Your task to perform on an android device: Open calendar and show me the first week of next month Image 0: 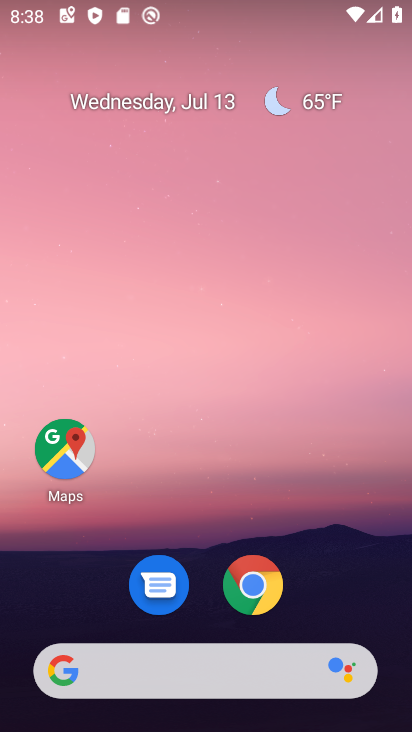
Step 0: drag from (325, 546) to (312, 10)
Your task to perform on an android device: Open calendar and show me the first week of next month Image 1: 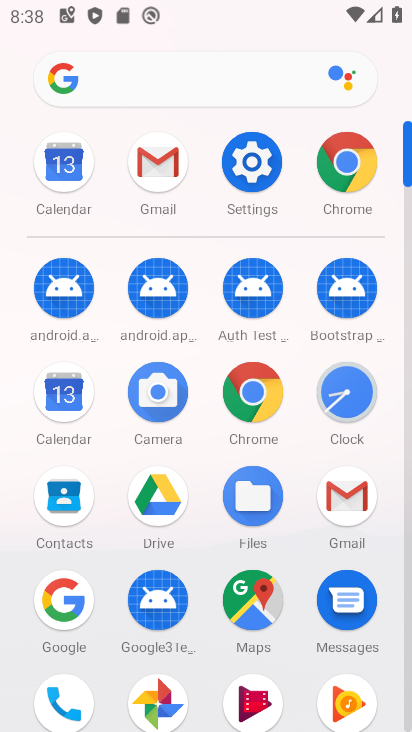
Step 1: click (73, 172)
Your task to perform on an android device: Open calendar and show me the first week of next month Image 2: 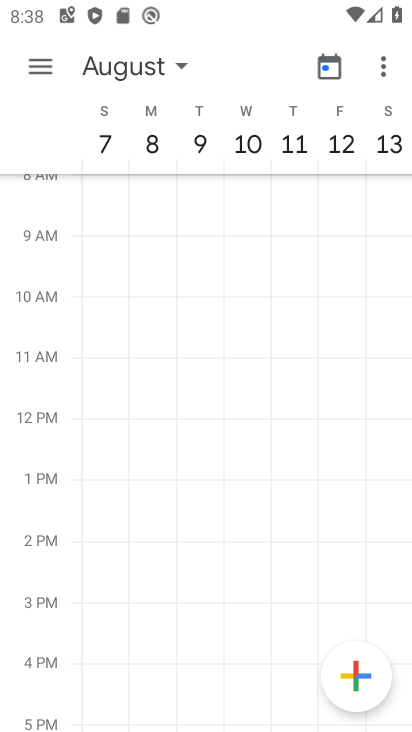
Step 2: task complete